Your task to perform on an android device: Open calendar and show me the third week of next month Image 0: 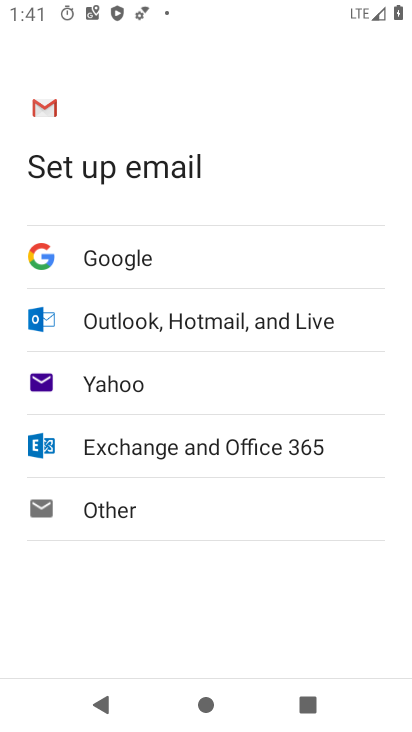
Step 0: press home button
Your task to perform on an android device: Open calendar and show me the third week of next month Image 1: 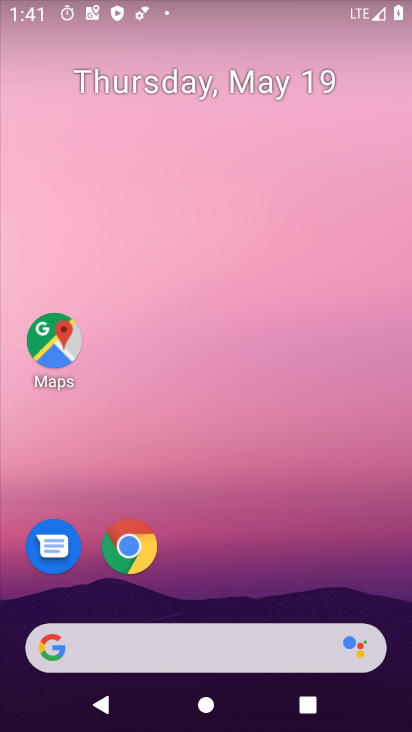
Step 1: click (190, 73)
Your task to perform on an android device: Open calendar and show me the third week of next month Image 2: 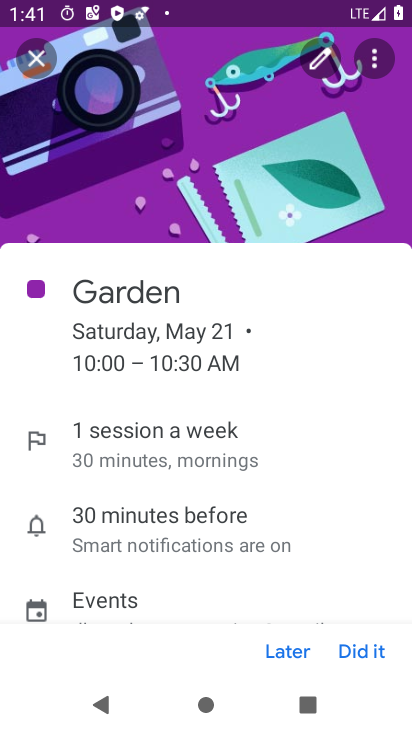
Step 2: click (40, 67)
Your task to perform on an android device: Open calendar and show me the third week of next month Image 3: 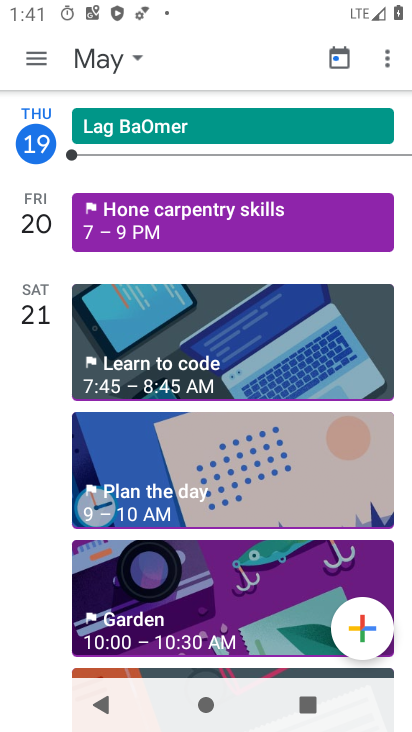
Step 3: click (107, 59)
Your task to perform on an android device: Open calendar and show me the third week of next month Image 4: 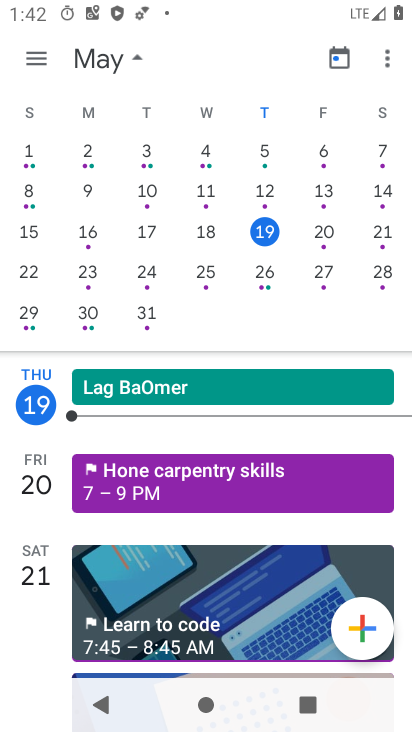
Step 4: drag from (349, 314) to (74, 300)
Your task to perform on an android device: Open calendar and show me the third week of next month Image 5: 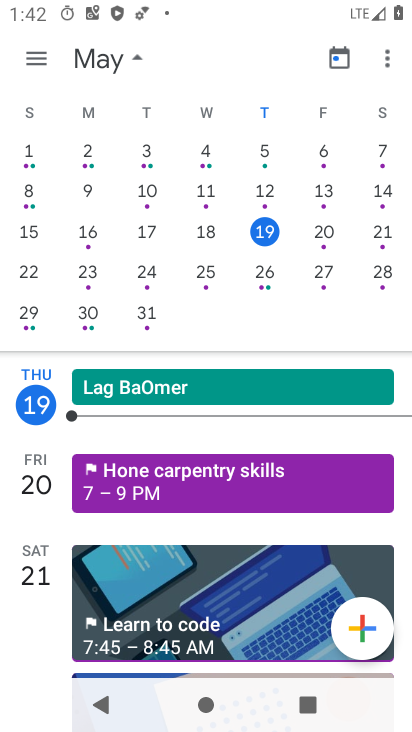
Step 5: drag from (355, 326) to (87, 315)
Your task to perform on an android device: Open calendar and show me the third week of next month Image 6: 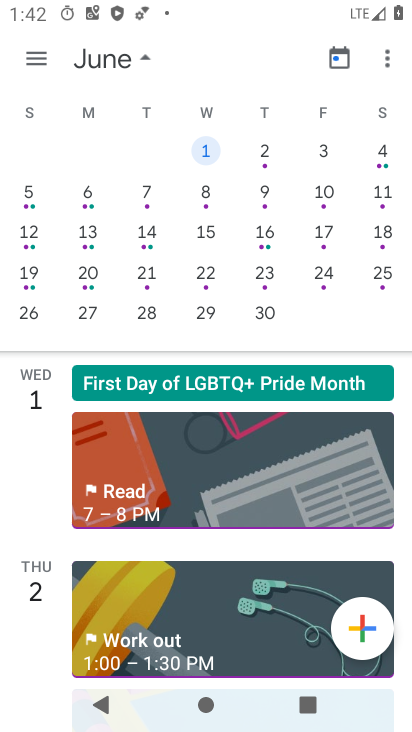
Step 6: click (200, 235)
Your task to perform on an android device: Open calendar and show me the third week of next month Image 7: 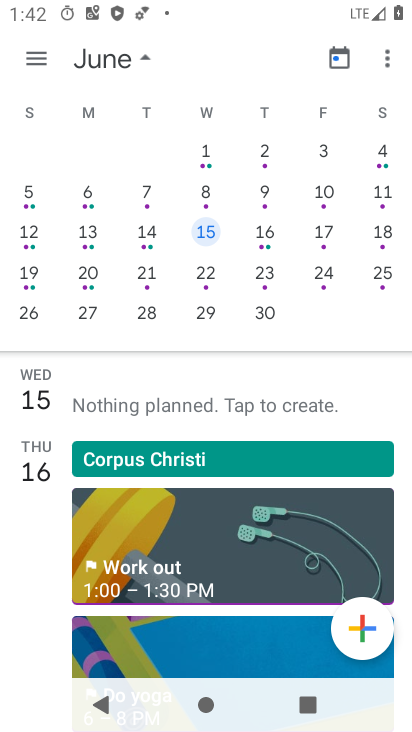
Step 7: task complete